Your task to perform on an android device: add a contact Image 0: 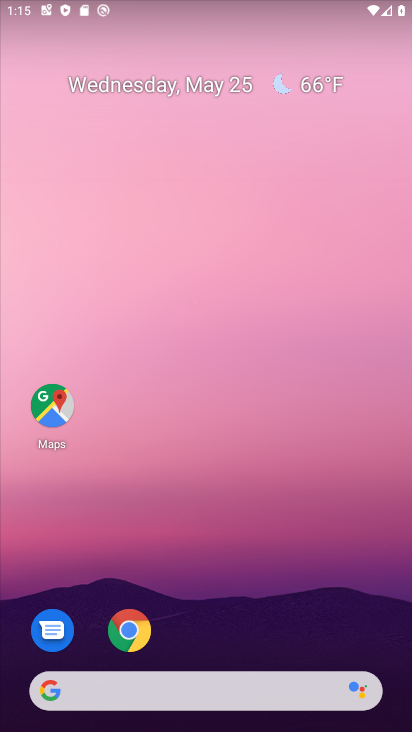
Step 0: drag from (221, 652) to (191, 24)
Your task to perform on an android device: add a contact Image 1: 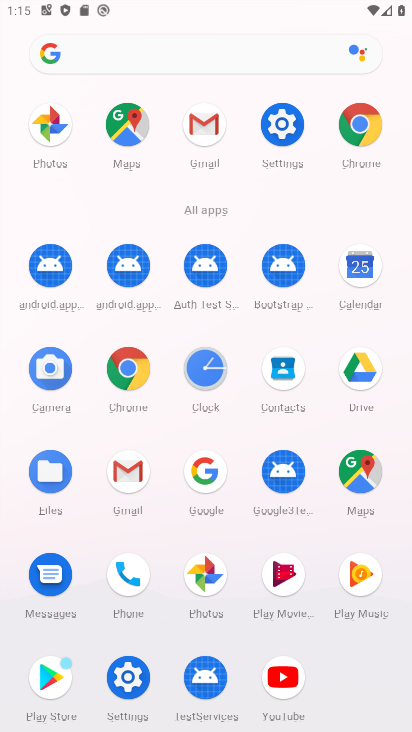
Step 1: click (281, 363)
Your task to perform on an android device: add a contact Image 2: 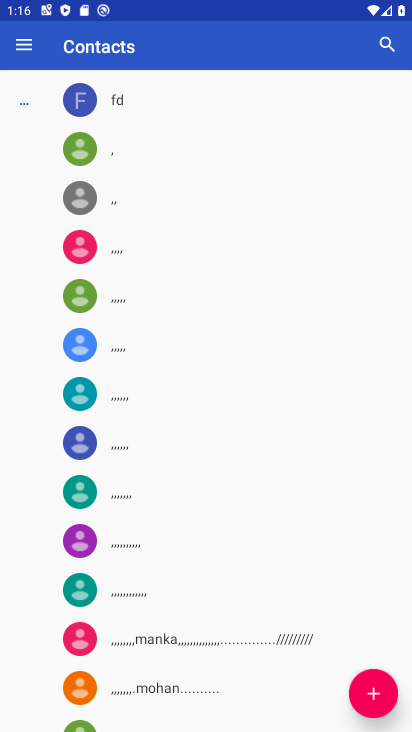
Step 2: click (371, 683)
Your task to perform on an android device: add a contact Image 3: 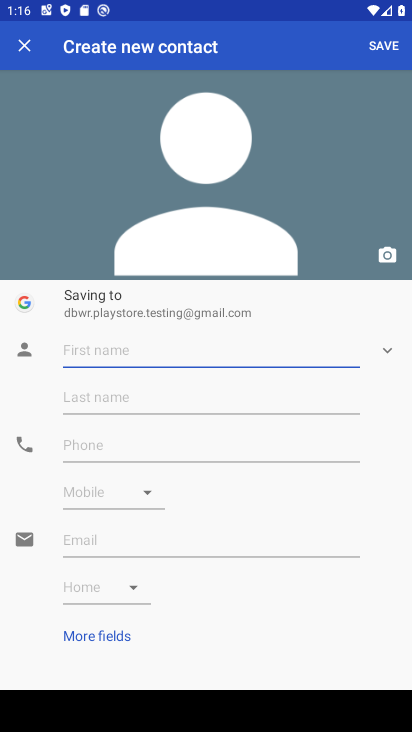
Step 3: type "vbvfgbf"
Your task to perform on an android device: add a contact Image 4: 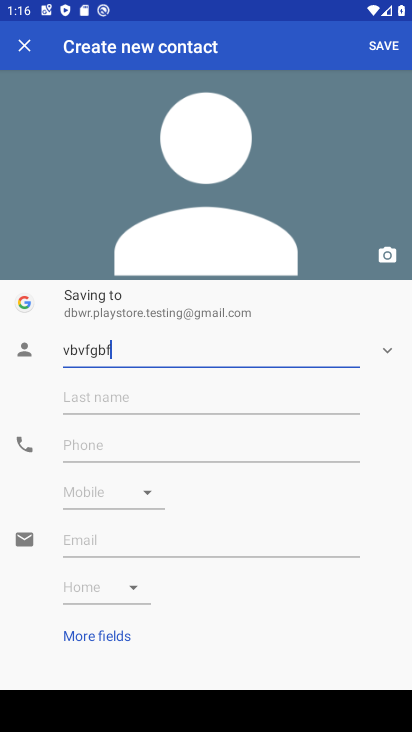
Step 4: type ""
Your task to perform on an android device: add a contact Image 5: 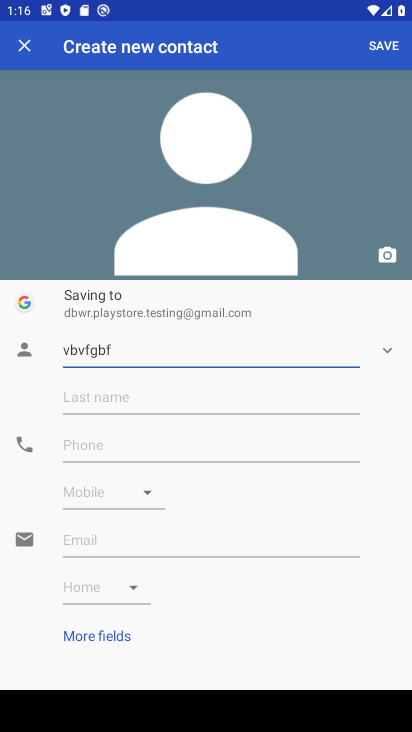
Step 5: click (386, 49)
Your task to perform on an android device: add a contact Image 6: 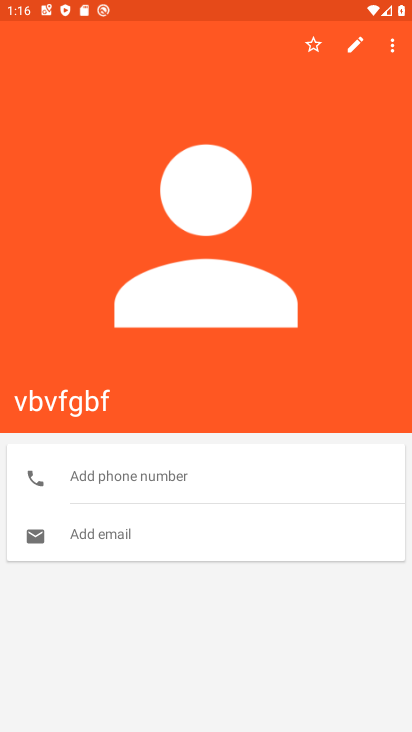
Step 6: task complete